Your task to perform on an android device: turn off wifi Image 0: 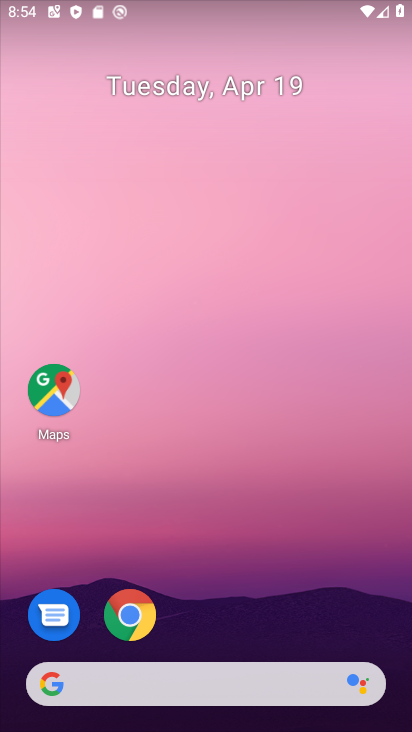
Step 0: drag from (299, 9) to (164, 523)
Your task to perform on an android device: turn off wifi Image 1: 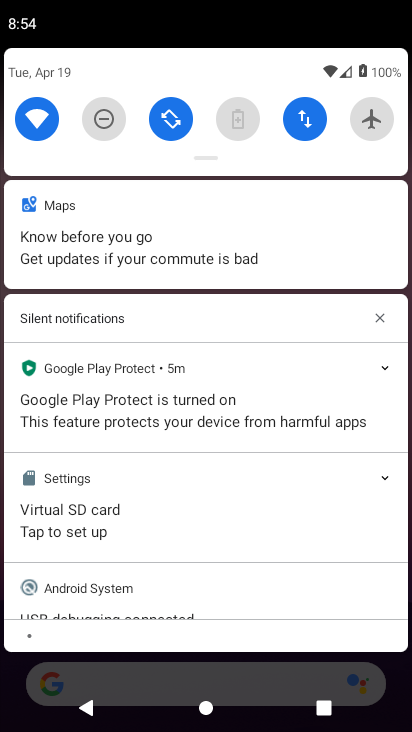
Step 1: click (38, 139)
Your task to perform on an android device: turn off wifi Image 2: 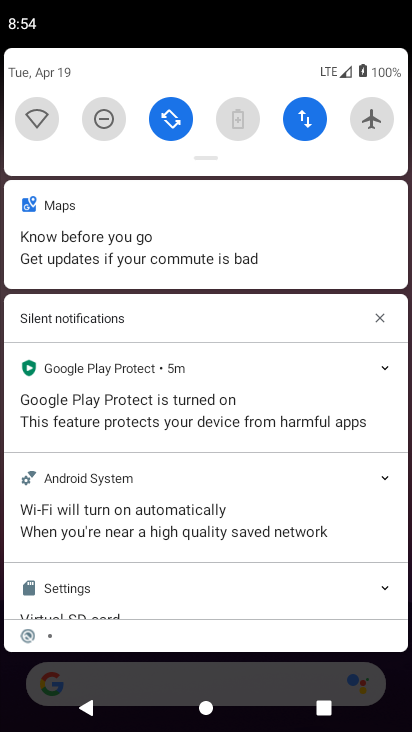
Step 2: task complete